Your task to perform on an android device: Open ESPN.com Image 0: 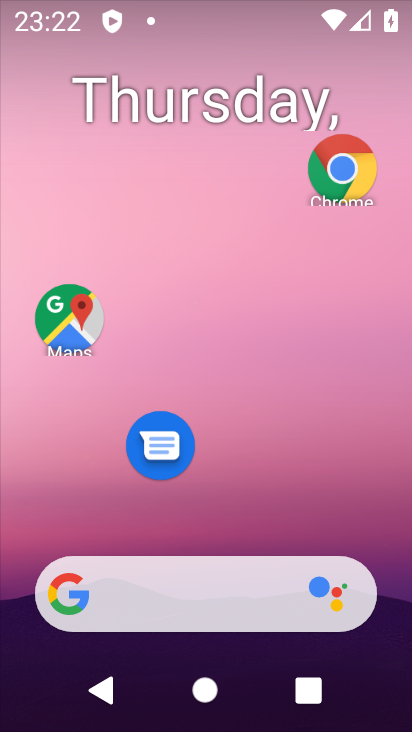
Step 0: drag from (194, 487) to (258, 157)
Your task to perform on an android device: Open ESPN.com Image 1: 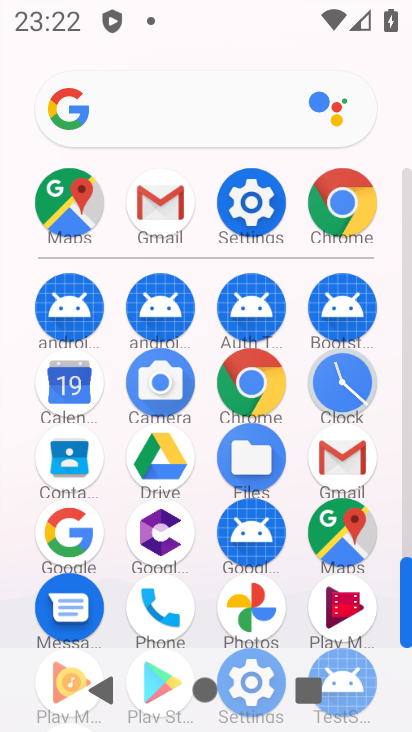
Step 1: click (243, 390)
Your task to perform on an android device: Open ESPN.com Image 2: 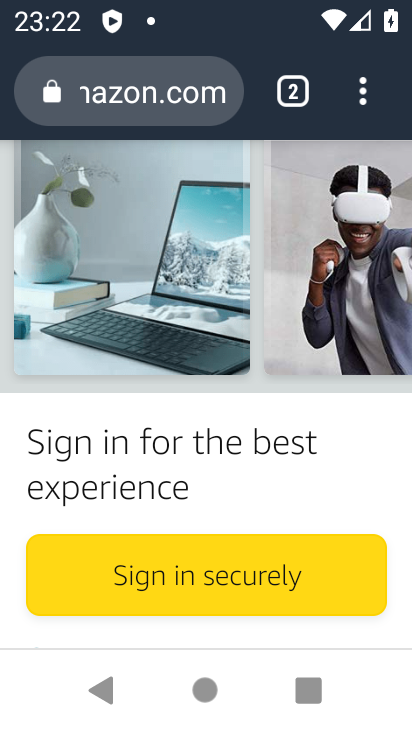
Step 2: click (361, 93)
Your task to perform on an android device: Open ESPN.com Image 3: 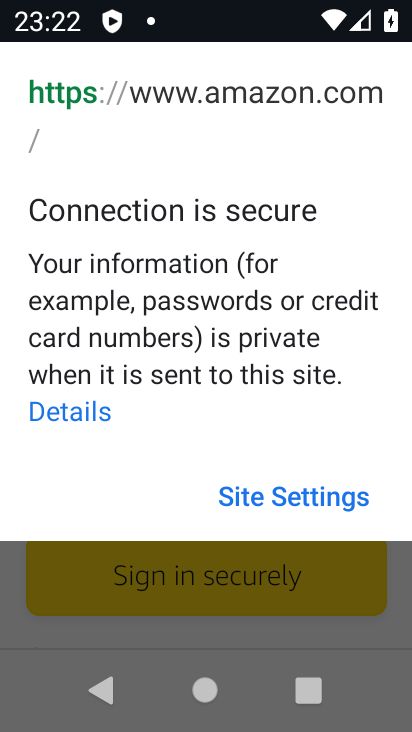
Step 3: press back button
Your task to perform on an android device: Open ESPN.com Image 4: 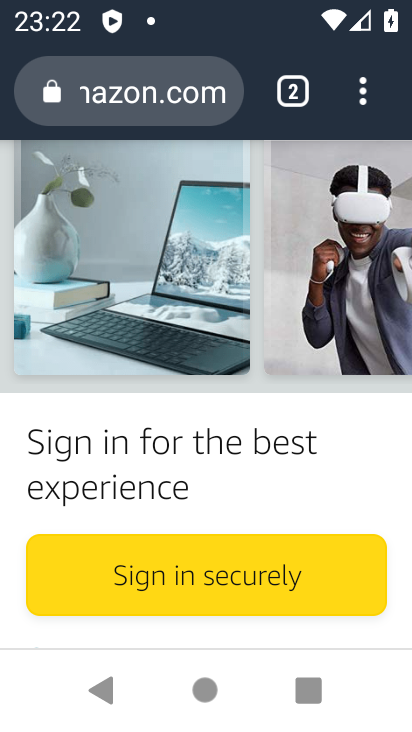
Step 4: drag from (229, 502) to (266, 186)
Your task to perform on an android device: Open ESPN.com Image 5: 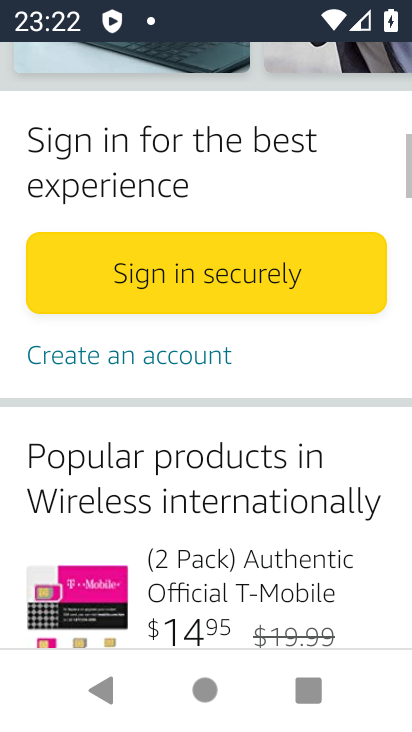
Step 5: click (281, 94)
Your task to perform on an android device: Open ESPN.com Image 6: 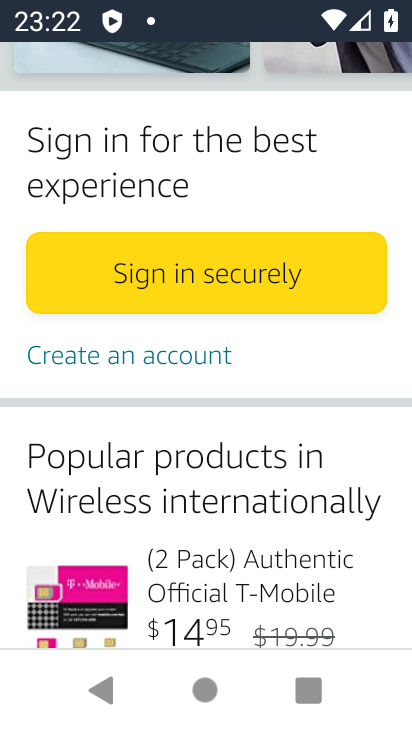
Step 6: drag from (283, 109) to (349, 597)
Your task to perform on an android device: Open ESPN.com Image 7: 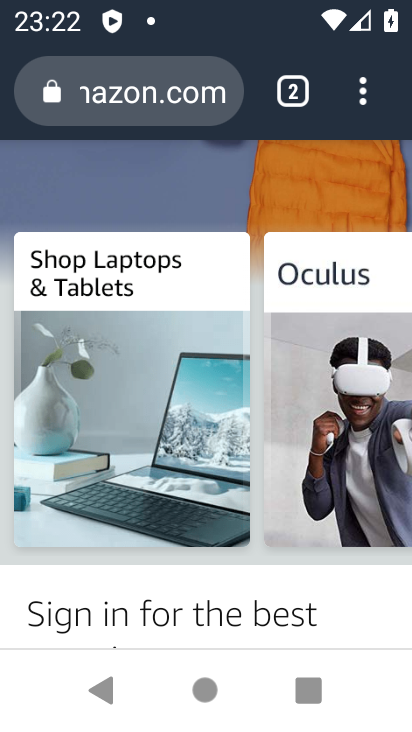
Step 7: click (312, 86)
Your task to perform on an android device: Open ESPN.com Image 8: 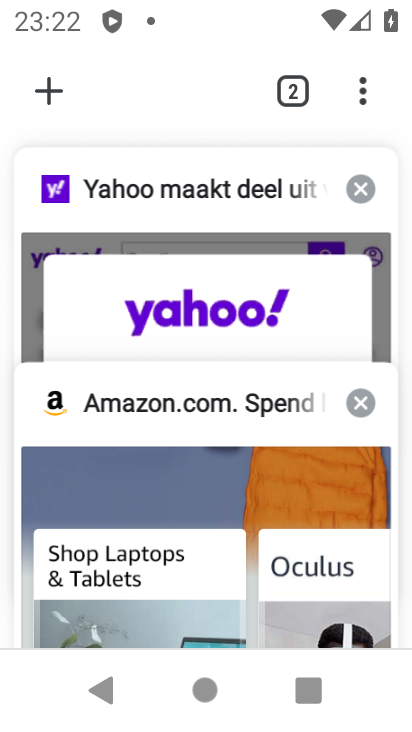
Step 8: click (355, 408)
Your task to perform on an android device: Open ESPN.com Image 9: 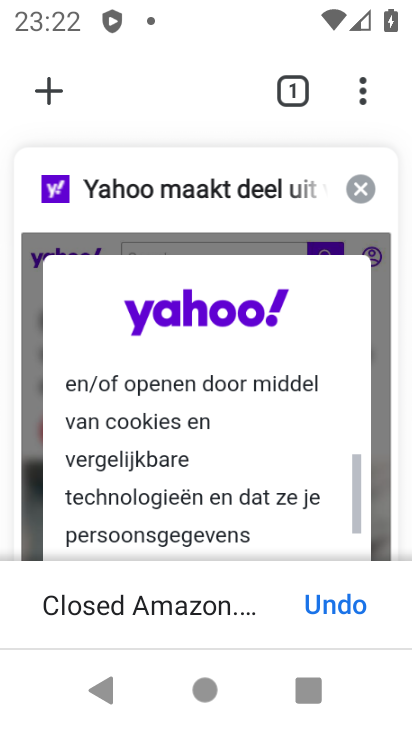
Step 9: click (36, 88)
Your task to perform on an android device: Open ESPN.com Image 10: 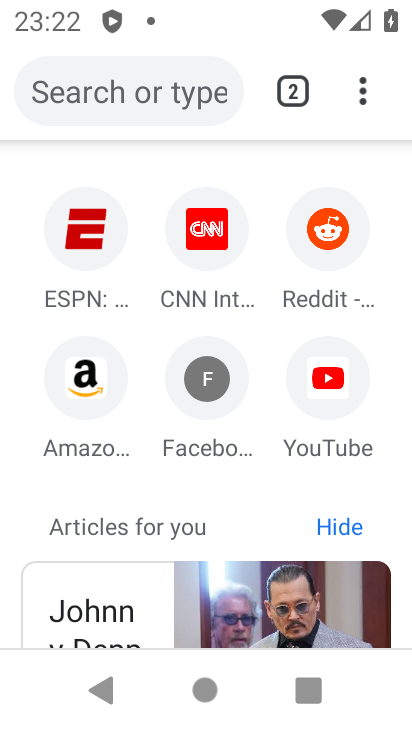
Step 10: click (104, 261)
Your task to perform on an android device: Open ESPN.com Image 11: 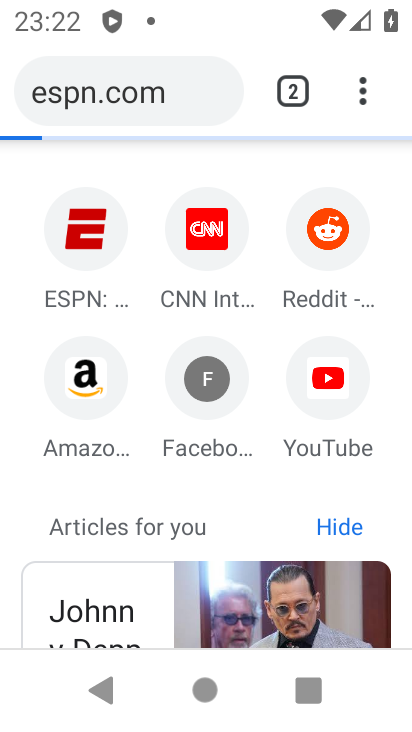
Step 11: task complete